Your task to perform on an android device: turn on the 12-hour format for clock Image 0: 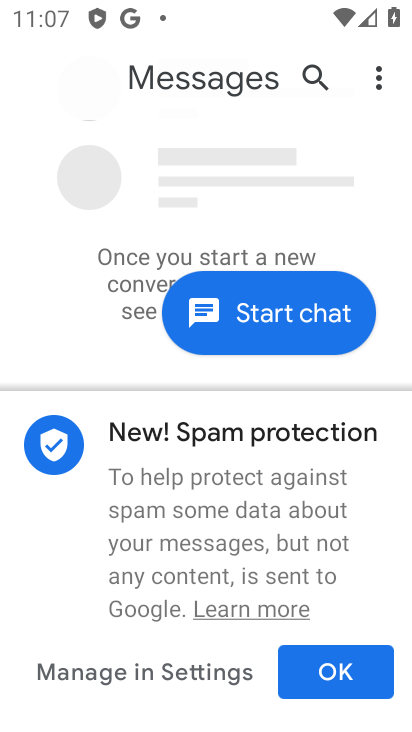
Step 0: drag from (409, 496) to (393, 59)
Your task to perform on an android device: turn on the 12-hour format for clock Image 1: 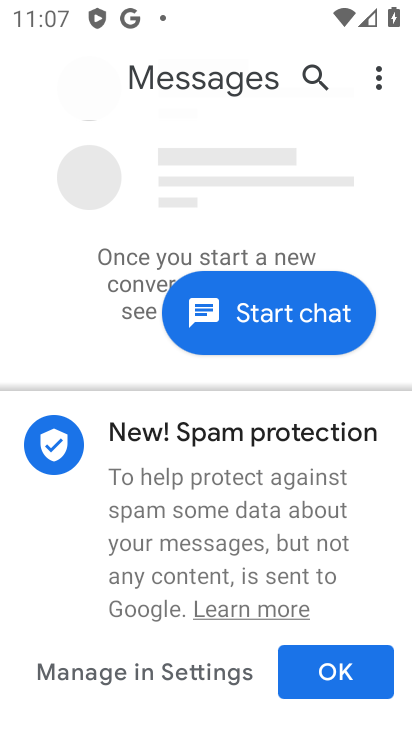
Step 1: press home button
Your task to perform on an android device: turn on the 12-hour format for clock Image 2: 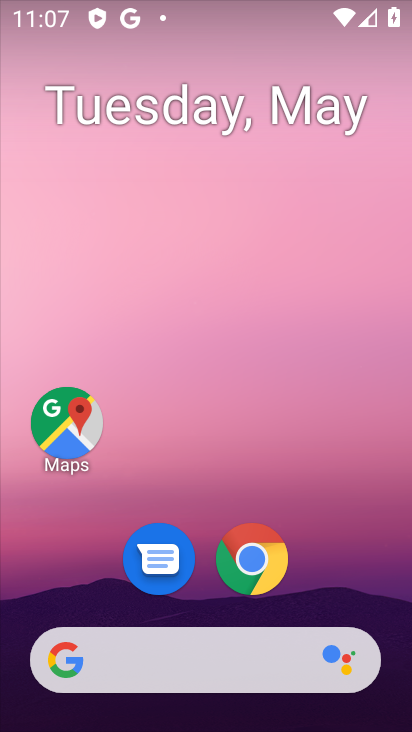
Step 2: drag from (377, 526) to (409, 111)
Your task to perform on an android device: turn on the 12-hour format for clock Image 3: 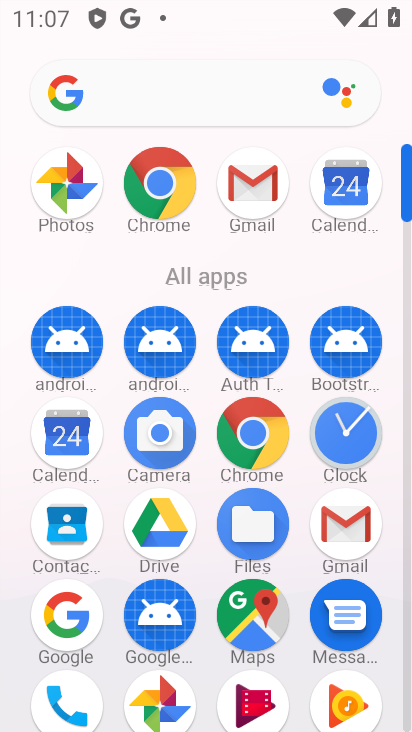
Step 3: drag from (397, 601) to (406, 318)
Your task to perform on an android device: turn on the 12-hour format for clock Image 4: 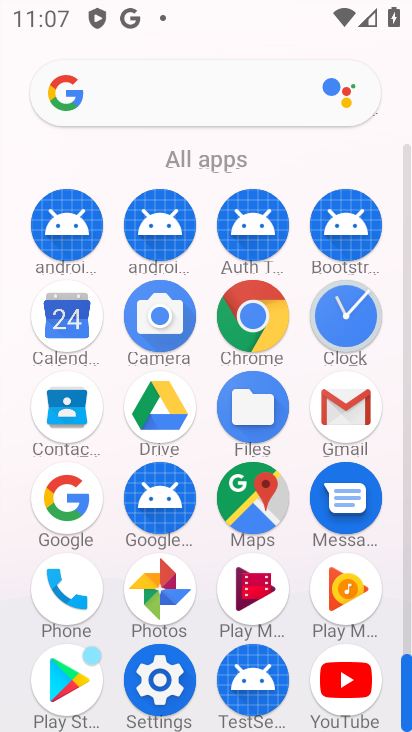
Step 4: click (348, 341)
Your task to perform on an android device: turn on the 12-hour format for clock Image 5: 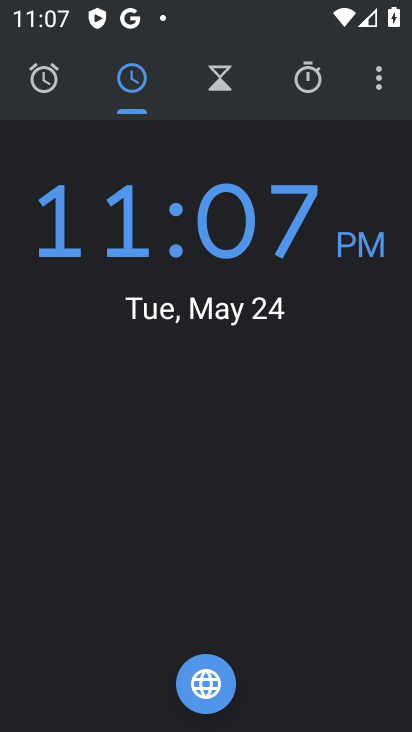
Step 5: click (384, 114)
Your task to perform on an android device: turn on the 12-hour format for clock Image 6: 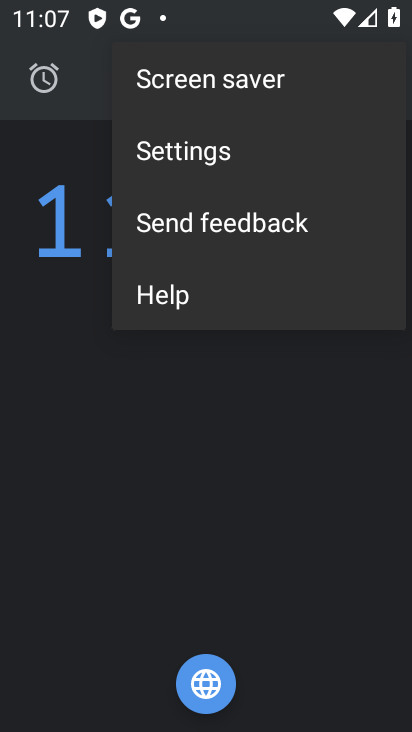
Step 6: click (208, 158)
Your task to perform on an android device: turn on the 12-hour format for clock Image 7: 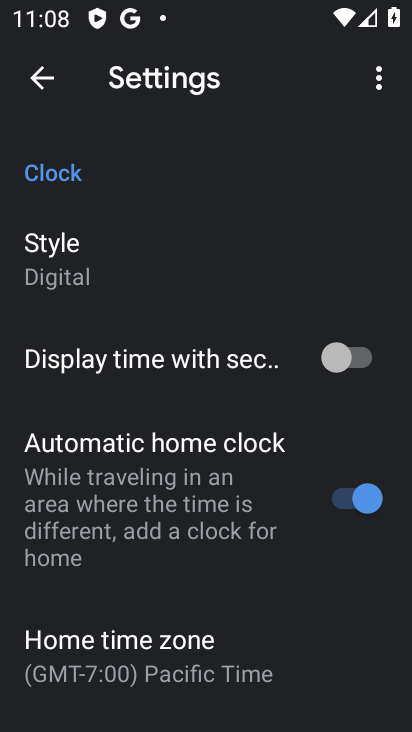
Step 7: drag from (127, 267) to (128, 657)
Your task to perform on an android device: turn on the 12-hour format for clock Image 8: 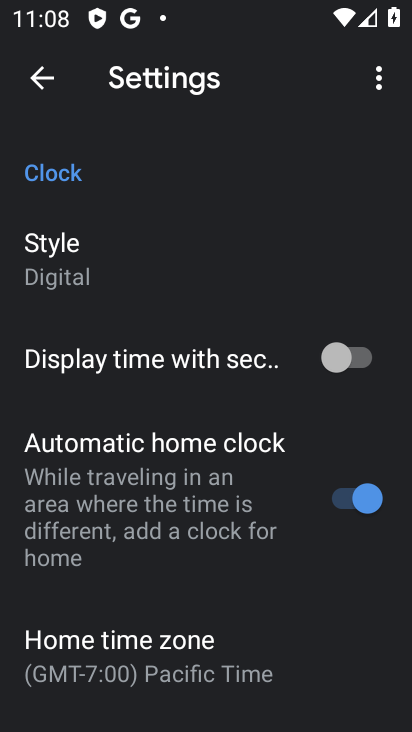
Step 8: drag from (113, 608) to (136, 141)
Your task to perform on an android device: turn on the 12-hour format for clock Image 9: 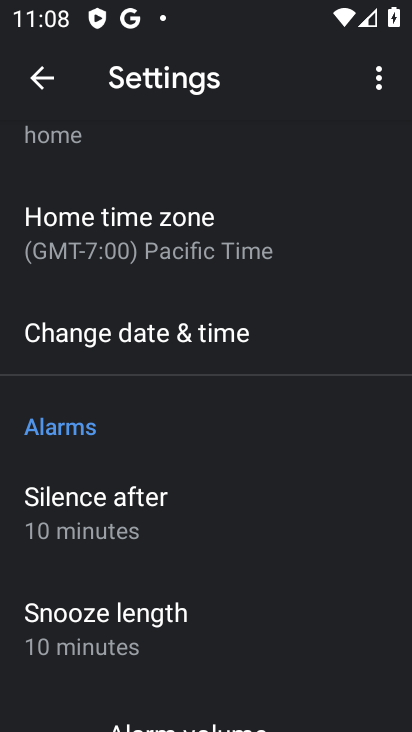
Step 9: click (93, 348)
Your task to perform on an android device: turn on the 12-hour format for clock Image 10: 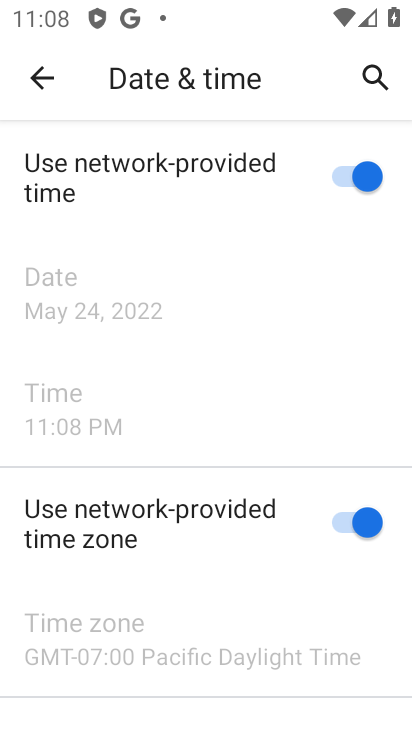
Step 10: task complete